Your task to perform on an android device: Open settings Image 0: 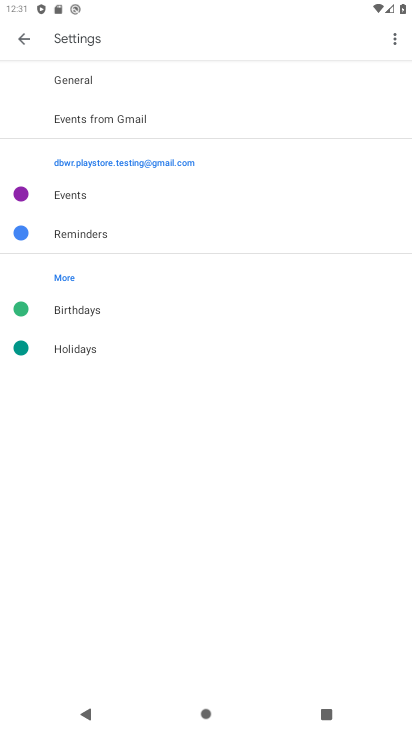
Step 0: press home button
Your task to perform on an android device: Open settings Image 1: 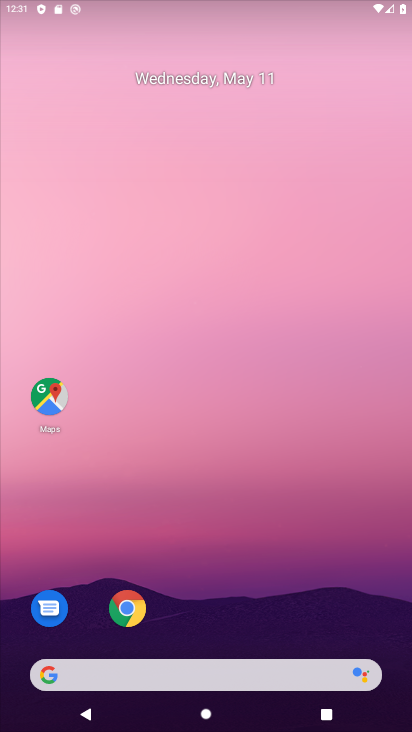
Step 1: drag from (277, 629) to (353, 10)
Your task to perform on an android device: Open settings Image 2: 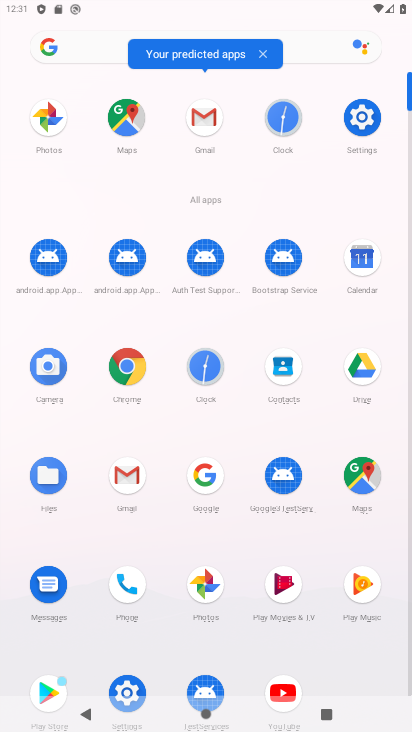
Step 2: click (359, 116)
Your task to perform on an android device: Open settings Image 3: 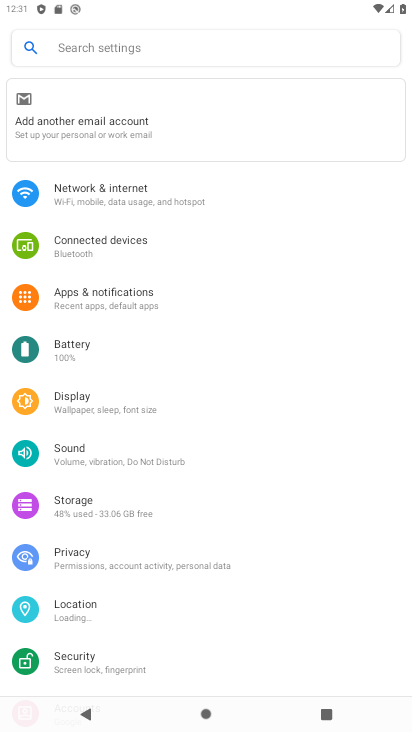
Step 3: task complete